Your task to perform on an android device: snooze an email in the gmail app Image 0: 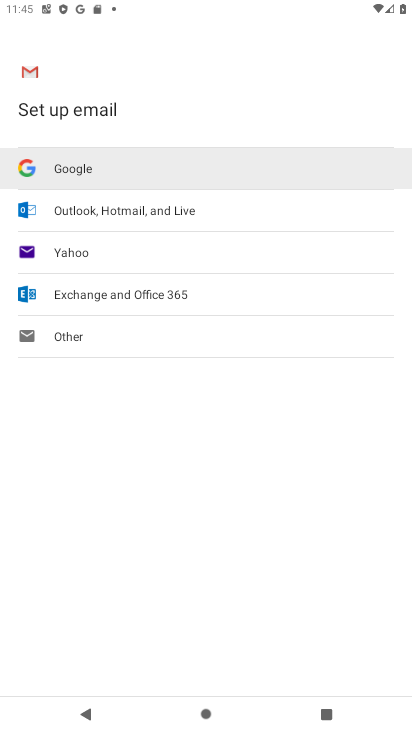
Step 0: press home button
Your task to perform on an android device: snooze an email in the gmail app Image 1: 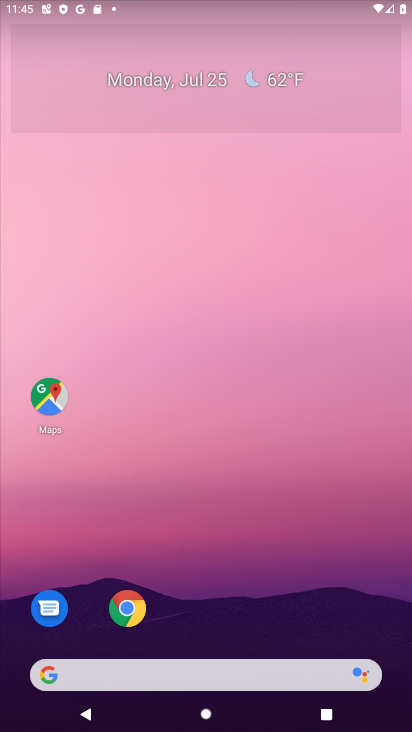
Step 1: drag from (274, 579) to (280, 226)
Your task to perform on an android device: snooze an email in the gmail app Image 2: 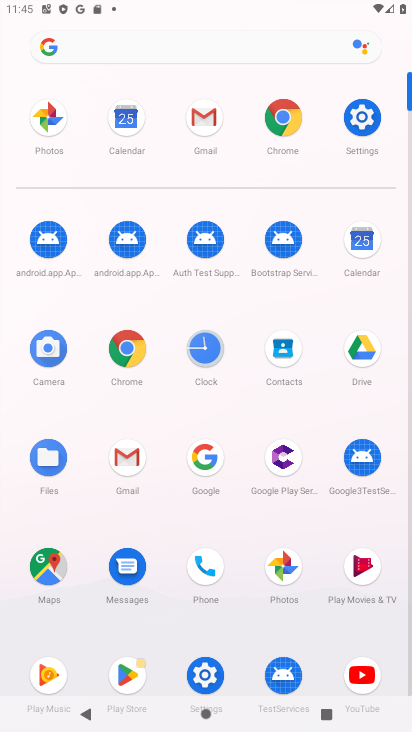
Step 2: click (129, 463)
Your task to perform on an android device: snooze an email in the gmail app Image 3: 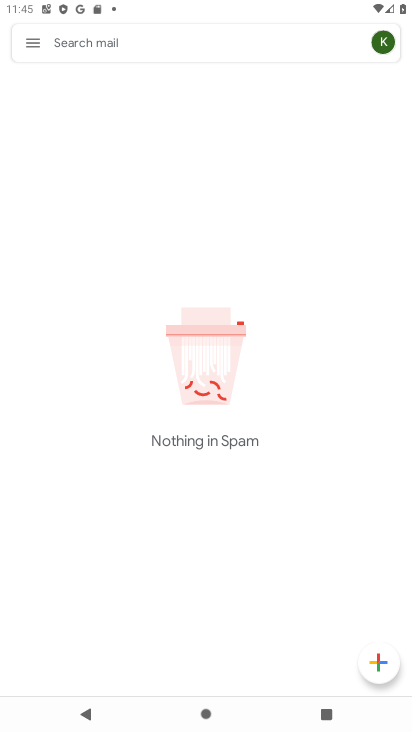
Step 3: click (33, 38)
Your task to perform on an android device: snooze an email in the gmail app Image 4: 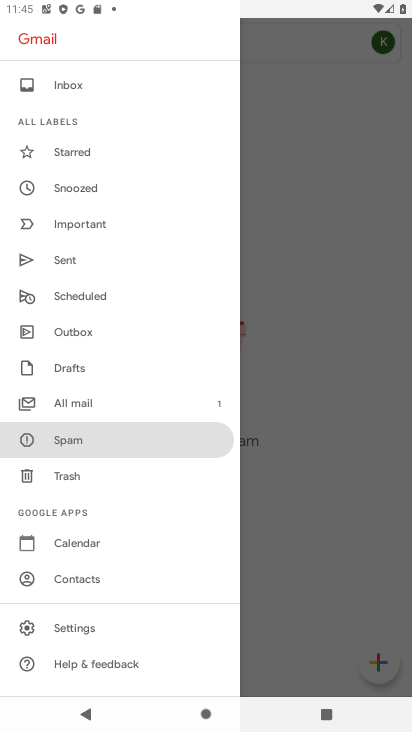
Step 4: click (109, 187)
Your task to perform on an android device: snooze an email in the gmail app Image 5: 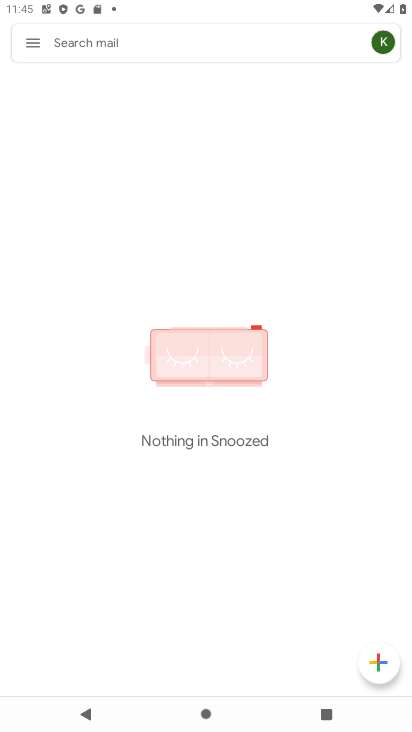
Step 5: task complete